Your task to perform on an android device: visit the assistant section in the google photos Image 0: 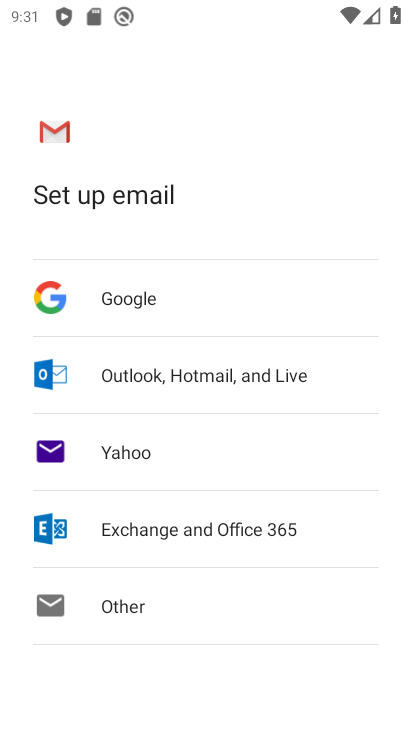
Step 0: press home button
Your task to perform on an android device: visit the assistant section in the google photos Image 1: 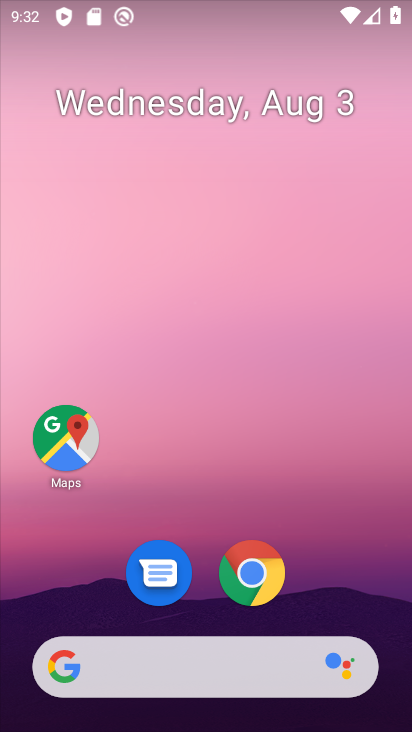
Step 1: drag from (214, 669) to (249, 9)
Your task to perform on an android device: visit the assistant section in the google photos Image 2: 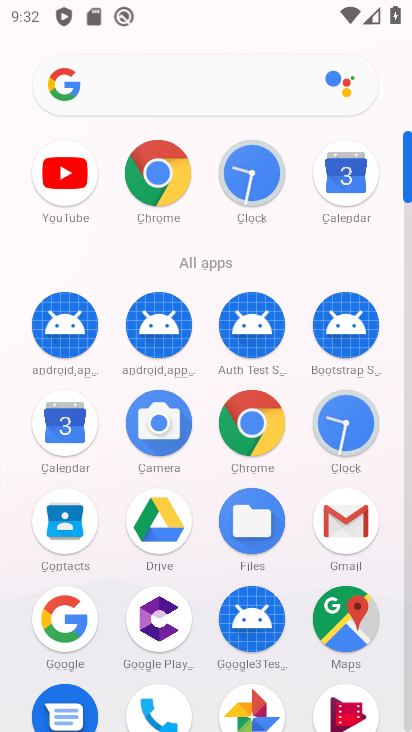
Step 2: click (252, 707)
Your task to perform on an android device: visit the assistant section in the google photos Image 3: 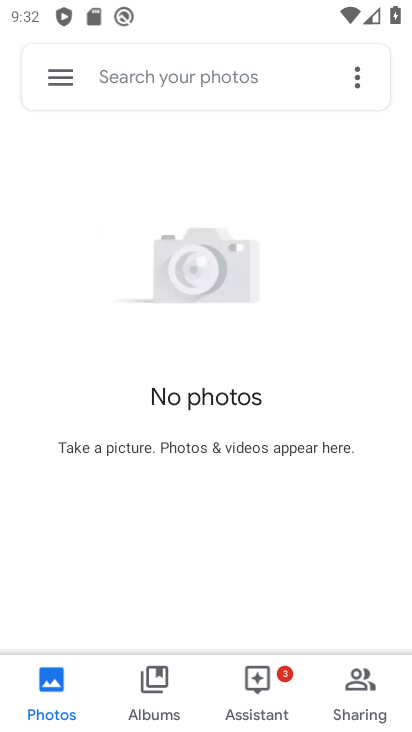
Step 3: click (266, 692)
Your task to perform on an android device: visit the assistant section in the google photos Image 4: 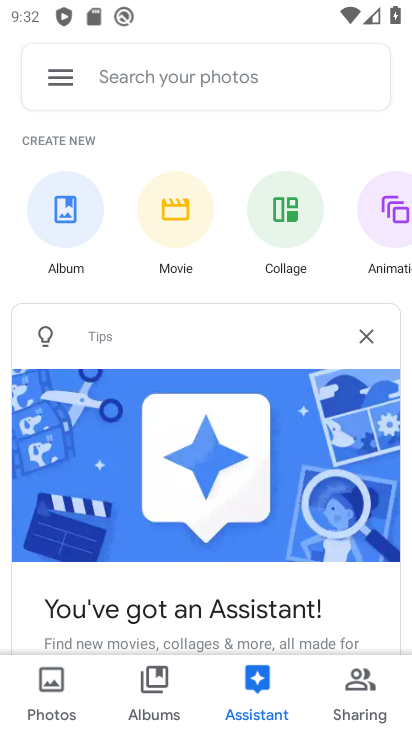
Step 4: task complete